Your task to perform on an android device: Go to Wikipedia Image 0: 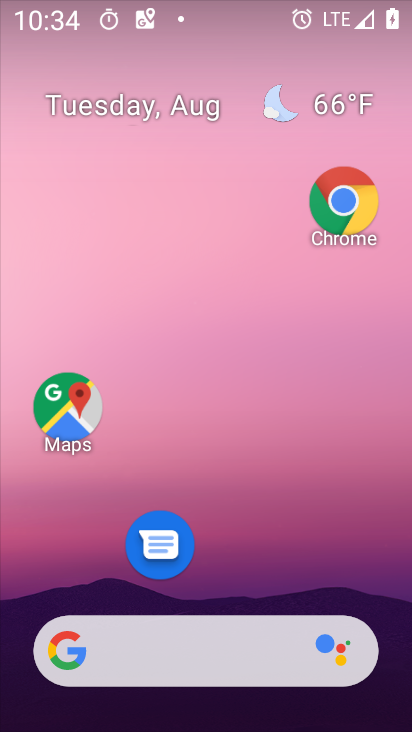
Step 0: drag from (241, 485) to (404, 691)
Your task to perform on an android device: Go to Wikipedia Image 1: 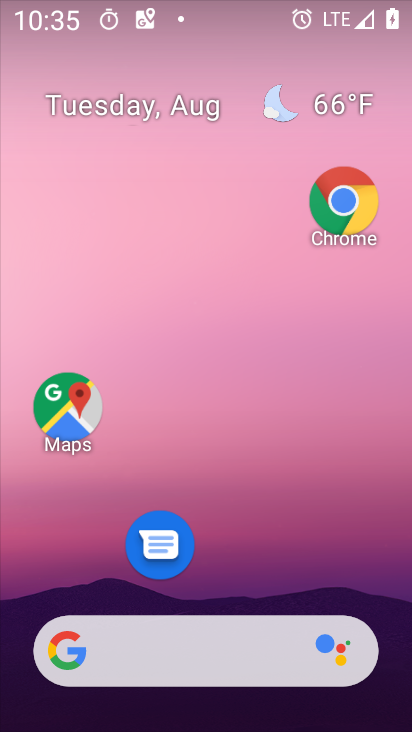
Step 1: drag from (242, 564) to (231, 8)
Your task to perform on an android device: Go to Wikipedia Image 2: 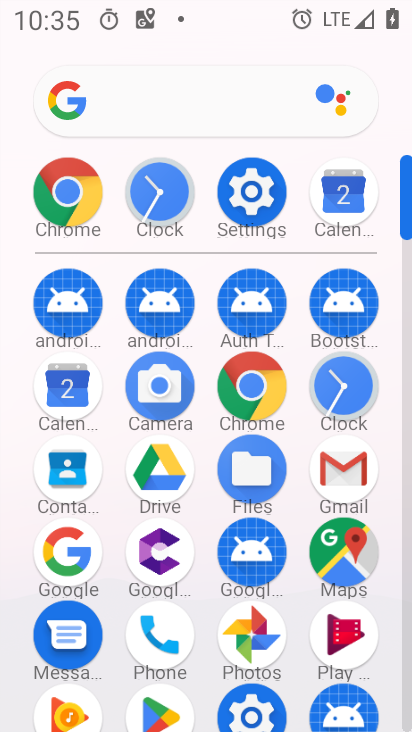
Step 2: click (257, 402)
Your task to perform on an android device: Go to Wikipedia Image 3: 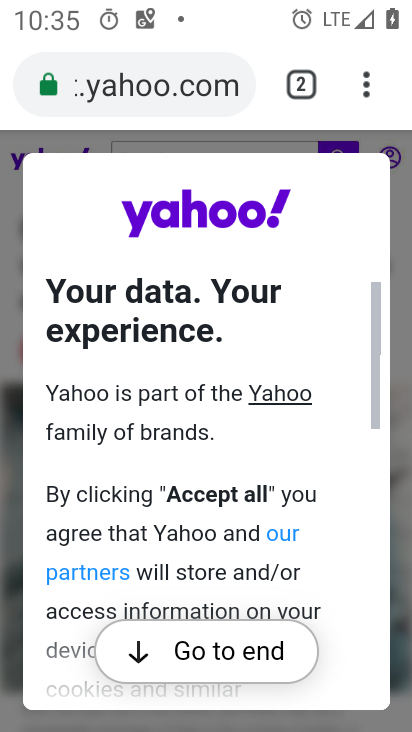
Step 3: click (187, 72)
Your task to perform on an android device: Go to Wikipedia Image 4: 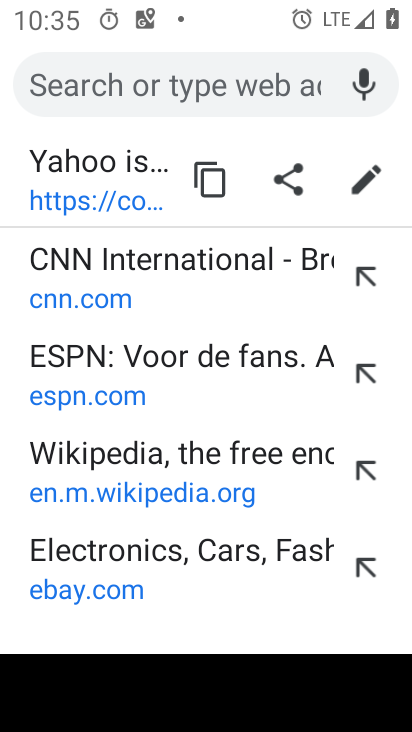
Step 4: click (169, 458)
Your task to perform on an android device: Go to Wikipedia Image 5: 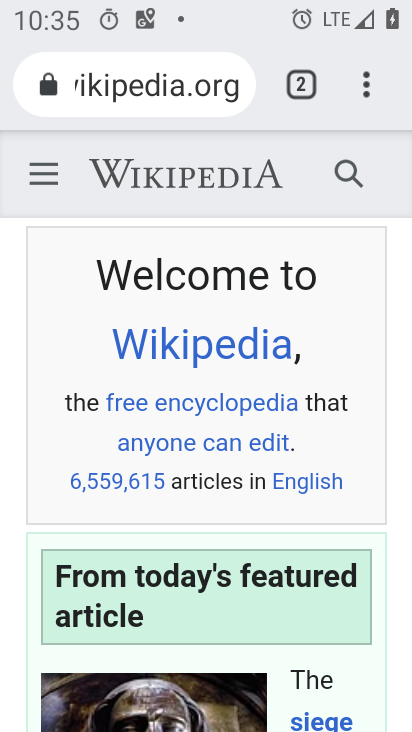
Step 5: task complete